Your task to perform on an android device: What's the top post on reddit? Image 0: 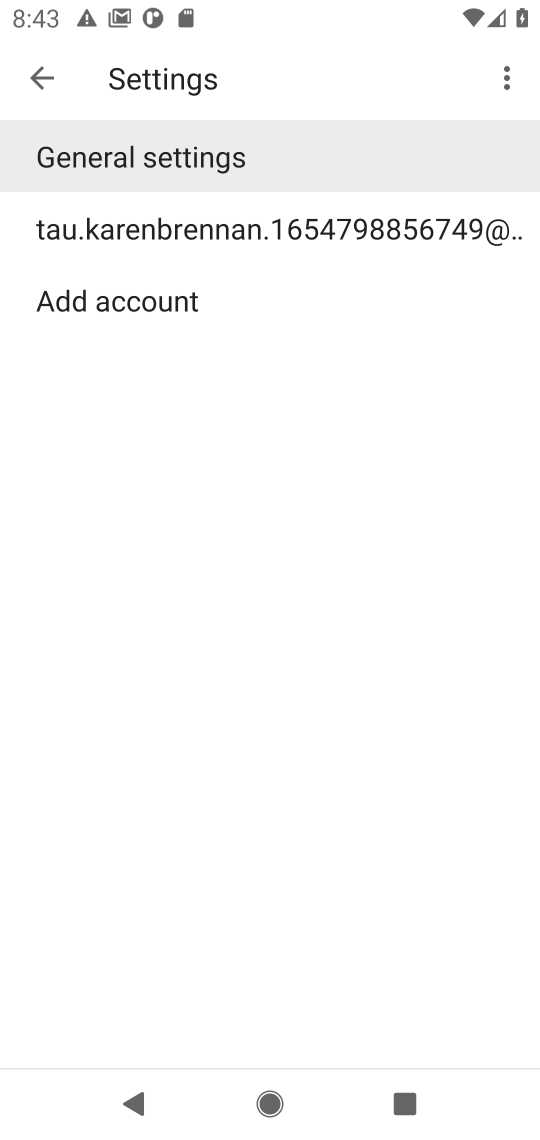
Step 0: press home button
Your task to perform on an android device: What's the top post on reddit? Image 1: 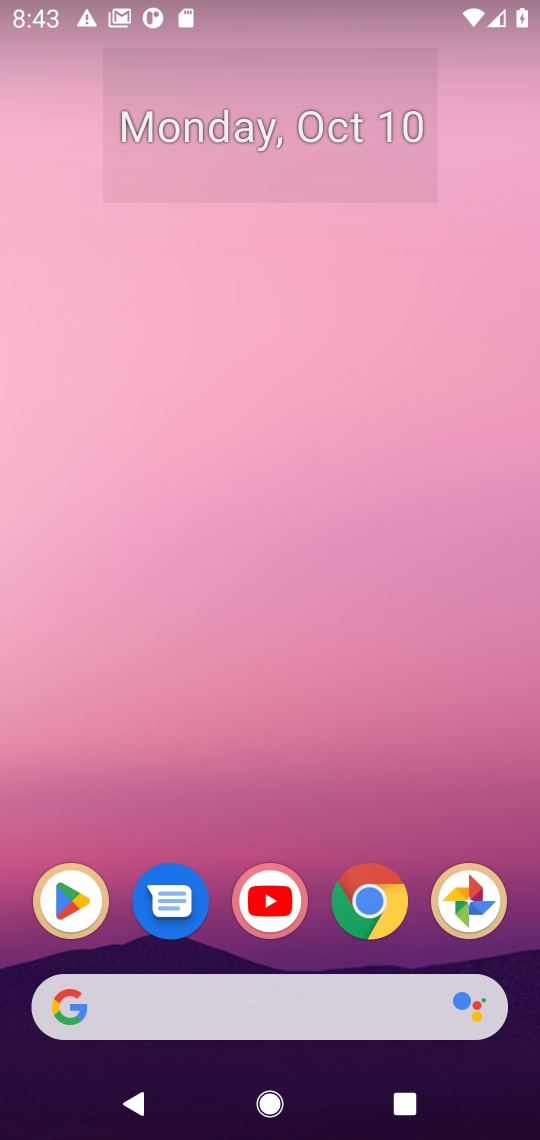
Step 1: click (252, 1009)
Your task to perform on an android device: What's the top post on reddit? Image 2: 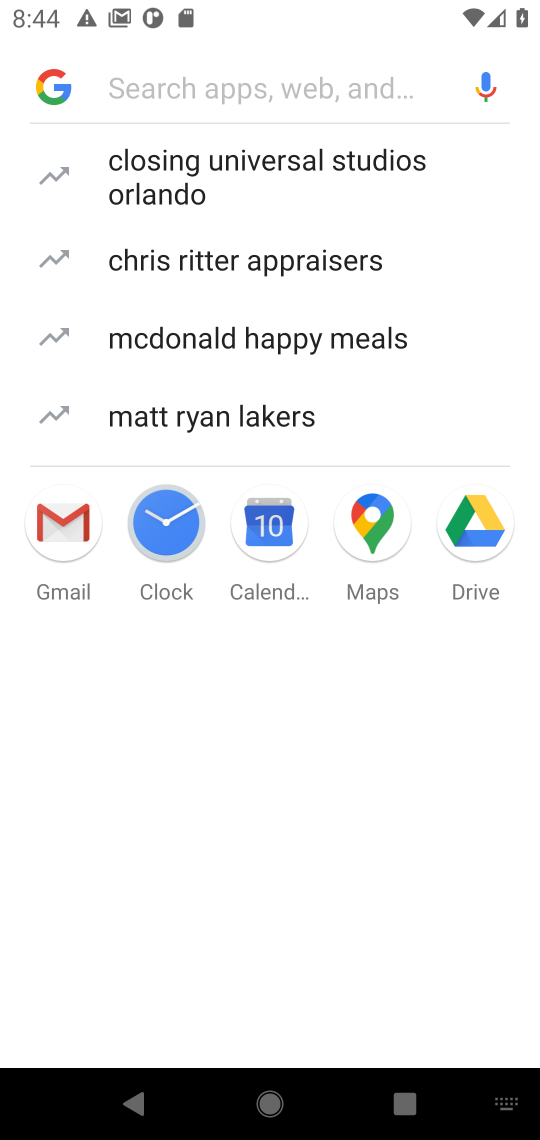
Step 2: type "What's the top post on reddit"
Your task to perform on an android device: What's the top post on reddit? Image 3: 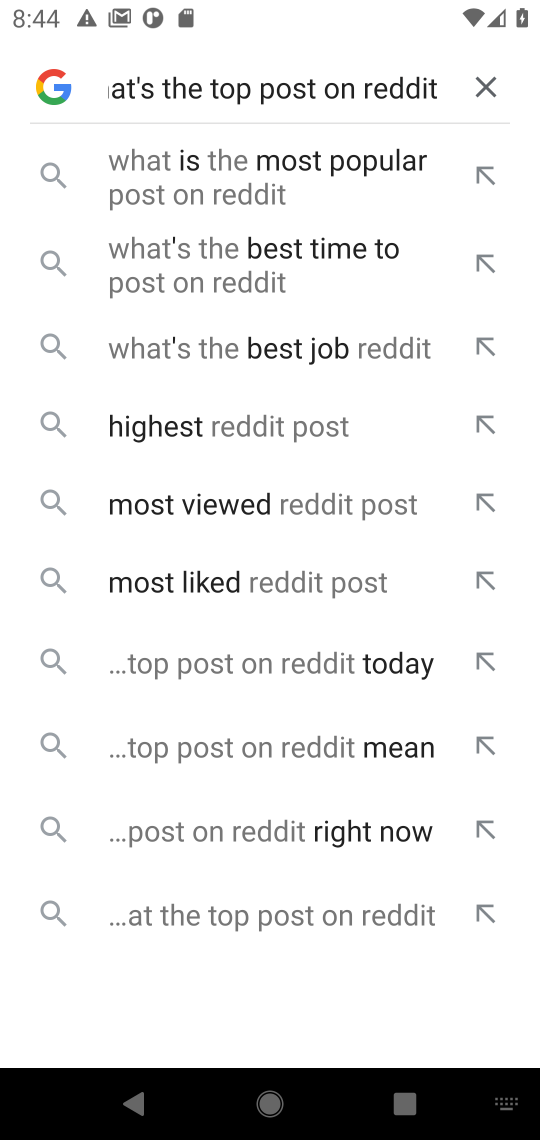
Step 3: press enter
Your task to perform on an android device: What's the top post on reddit? Image 4: 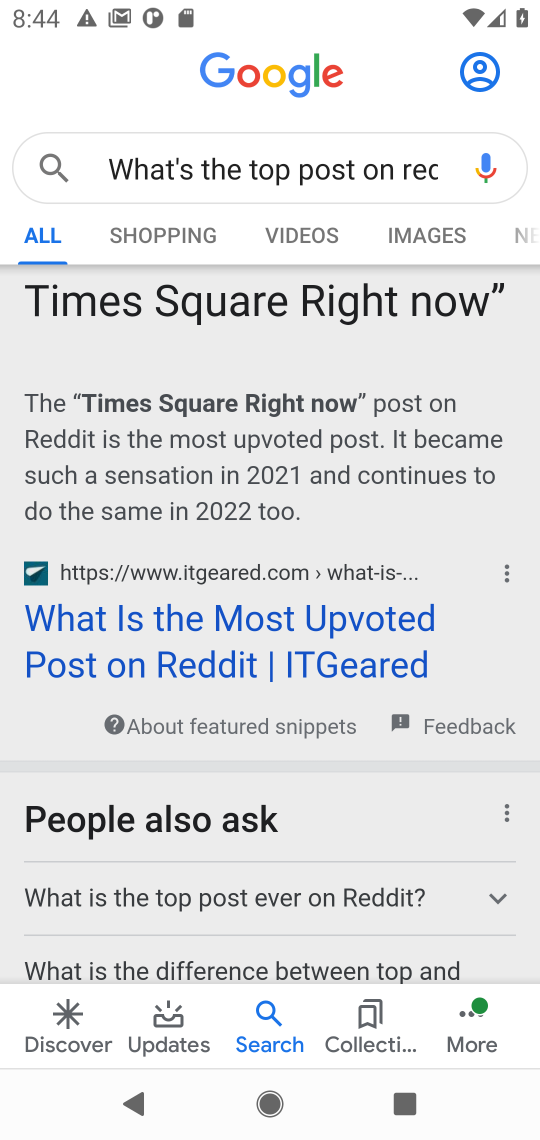
Step 4: drag from (387, 818) to (410, 341)
Your task to perform on an android device: What's the top post on reddit? Image 5: 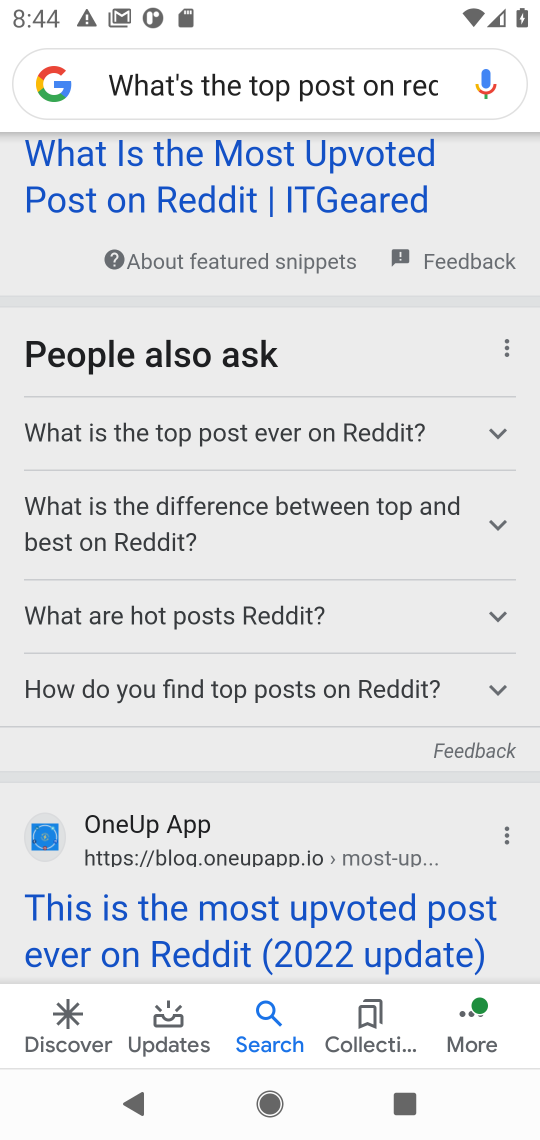
Step 5: drag from (296, 635) to (297, 452)
Your task to perform on an android device: What's the top post on reddit? Image 6: 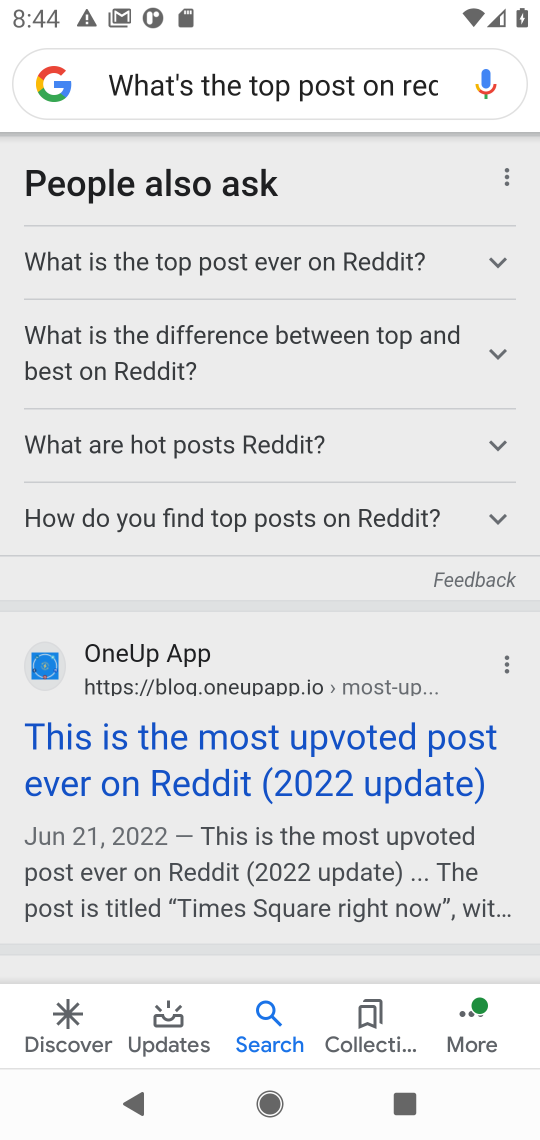
Step 6: click (344, 743)
Your task to perform on an android device: What's the top post on reddit? Image 7: 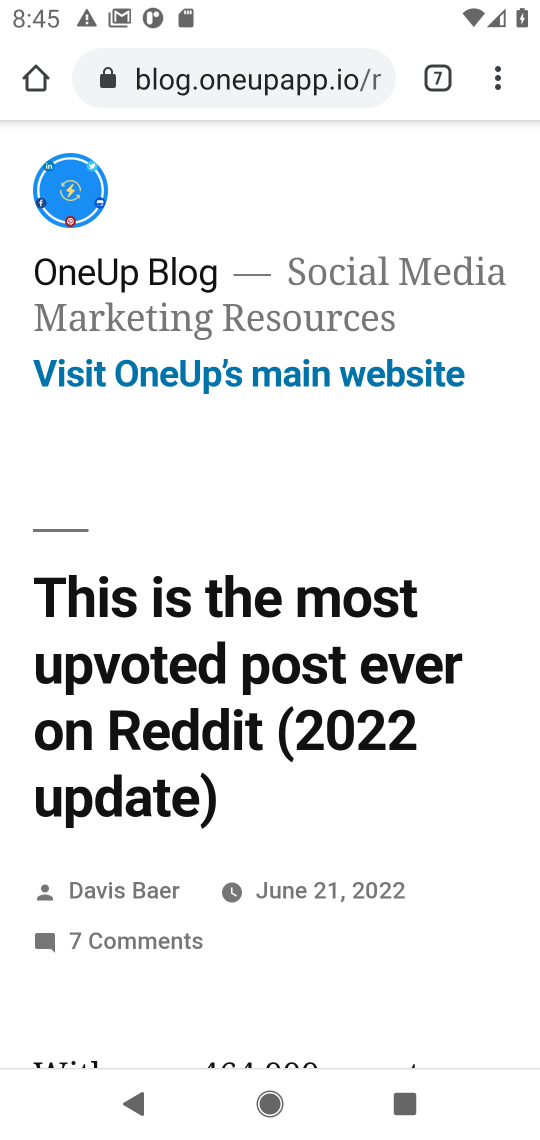
Step 7: task complete